Your task to perform on an android device: Go to Reddit.com Image 0: 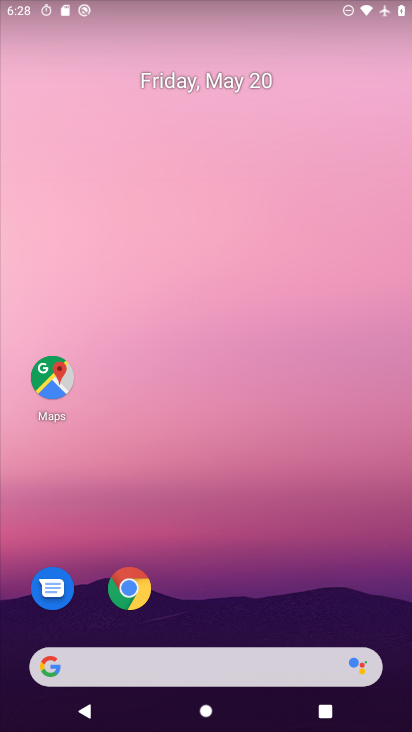
Step 0: click (136, 600)
Your task to perform on an android device: Go to Reddit.com Image 1: 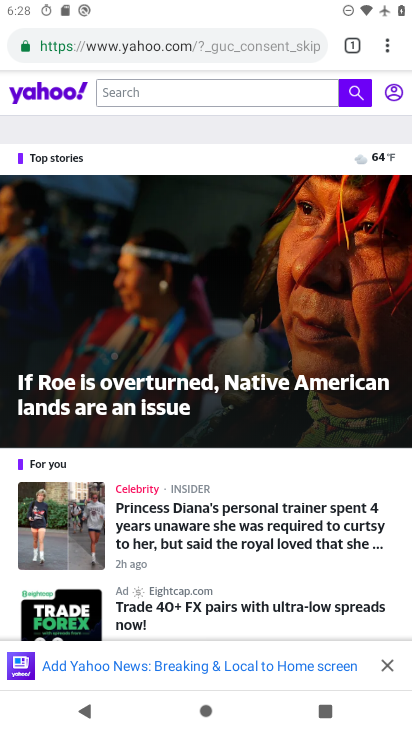
Step 1: click (147, 57)
Your task to perform on an android device: Go to Reddit.com Image 2: 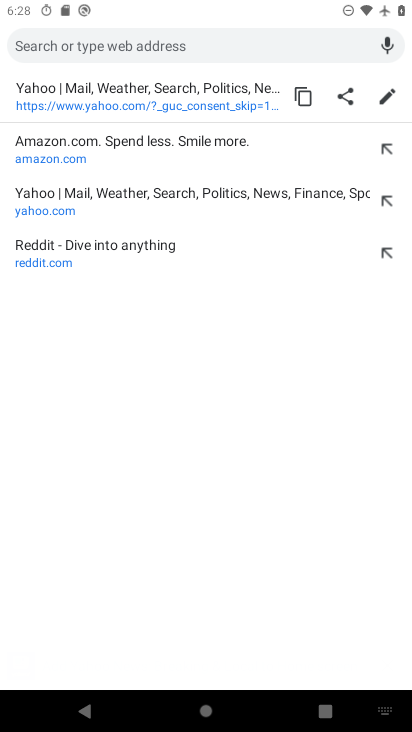
Step 2: click (92, 240)
Your task to perform on an android device: Go to Reddit.com Image 3: 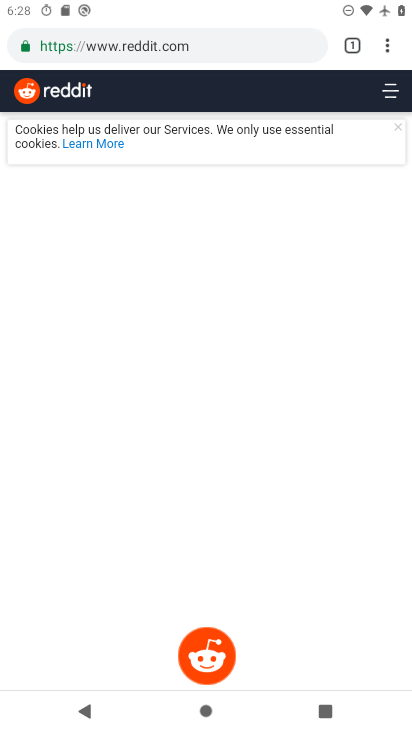
Step 3: task complete